Your task to perform on an android device: open the mobile data screen to see how much data has been used Image 0: 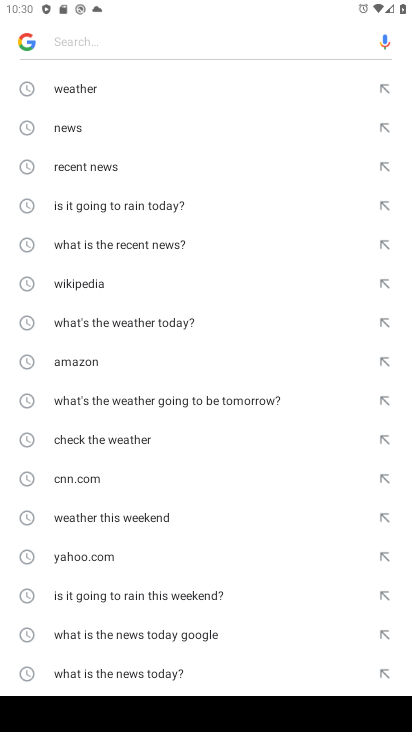
Step 0: press home button
Your task to perform on an android device: open the mobile data screen to see how much data has been used Image 1: 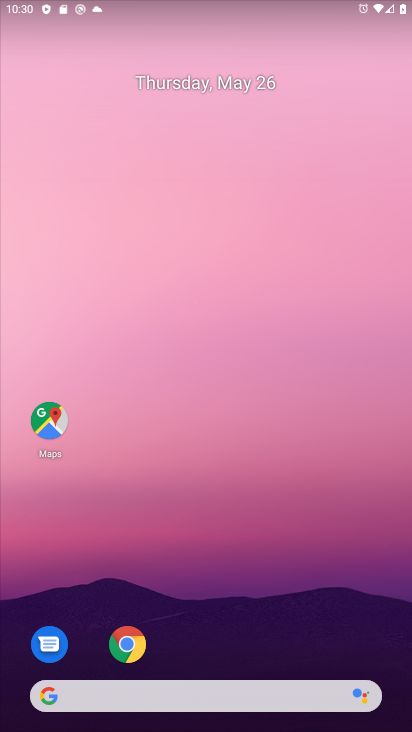
Step 1: drag from (241, 641) to (247, 113)
Your task to perform on an android device: open the mobile data screen to see how much data has been used Image 2: 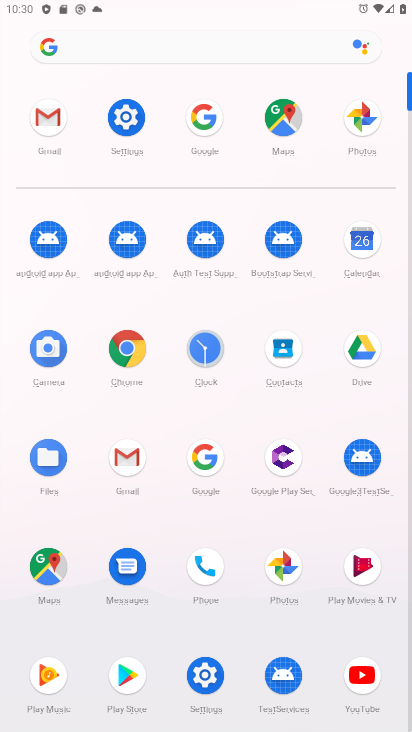
Step 2: click (140, 111)
Your task to perform on an android device: open the mobile data screen to see how much data has been used Image 3: 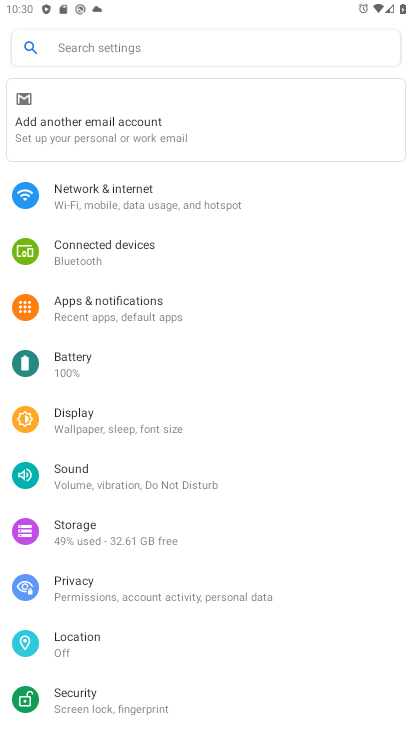
Step 3: click (150, 184)
Your task to perform on an android device: open the mobile data screen to see how much data has been used Image 4: 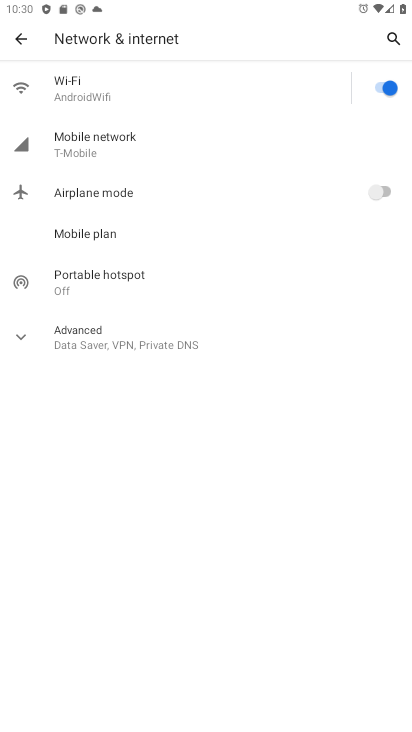
Step 4: click (133, 155)
Your task to perform on an android device: open the mobile data screen to see how much data has been used Image 5: 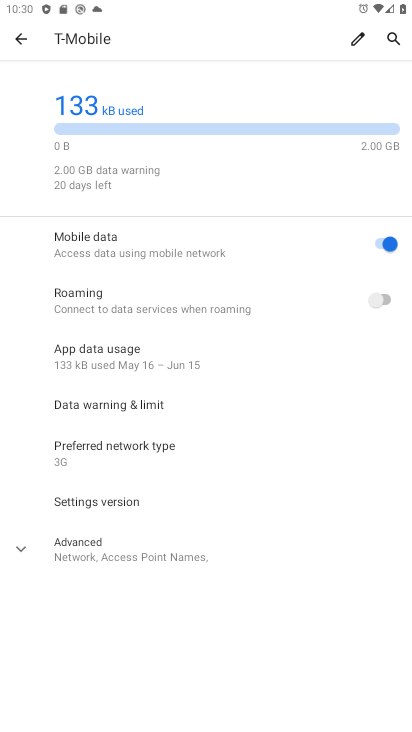
Step 5: task complete